Your task to perform on an android device: Open privacy settings Image 0: 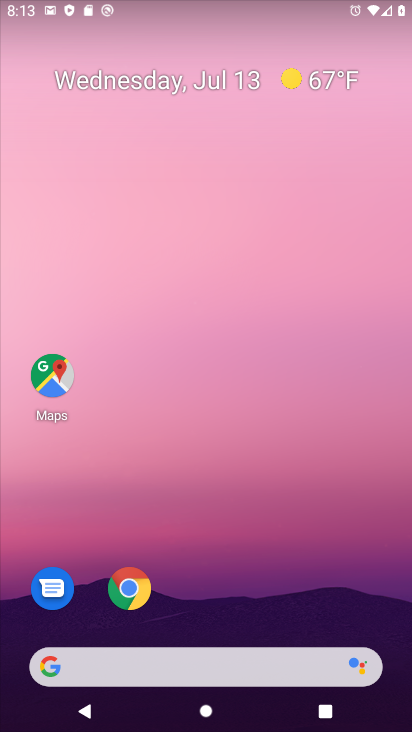
Step 0: drag from (250, 692) to (306, 128)
Your task to perform on an android device: Open privacy settings Image 1: 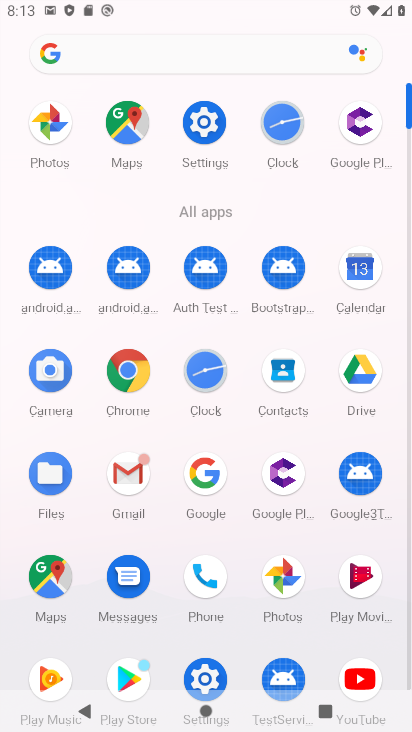
Step 1: drag from (197, 135) to (292, 550)
Your task to perform on an android device: Open privacy settings Image 2: 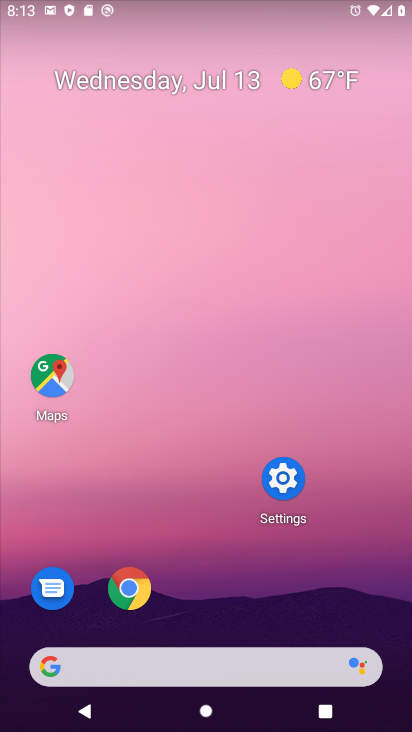
Step 2: click (283, 480)
Your task to perform on an android device: Open privacy settings Image 3: 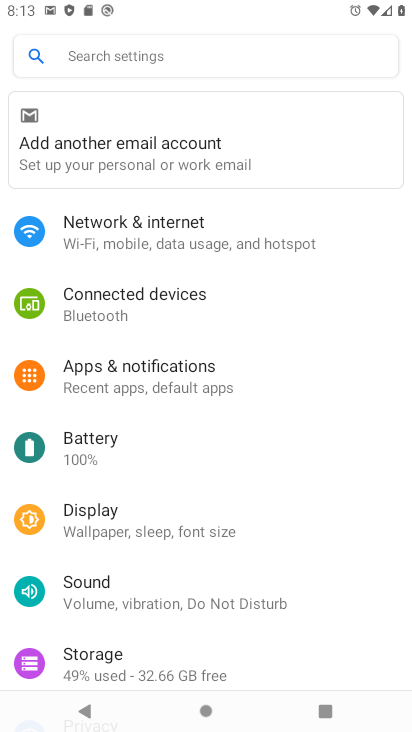
Step 3: drag from (168, 558) to (215, 322)
Your task to perform on an android device: Open privacy settings Image 4: 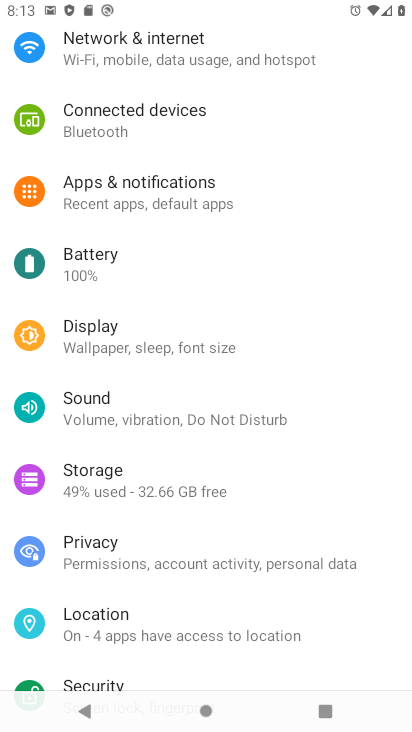
Step 4: click (139, 541)
Your task to perform on an android device: Open privacy settings Image 5: 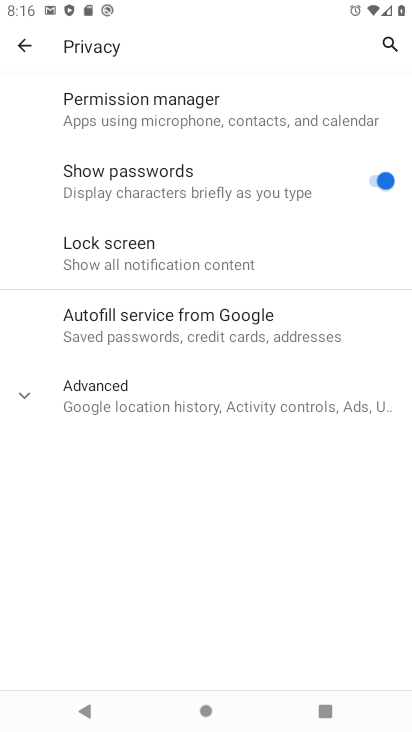
Step 5: task complete